Your task to perform on an android device: Open Chrome and go to settings Image 0: 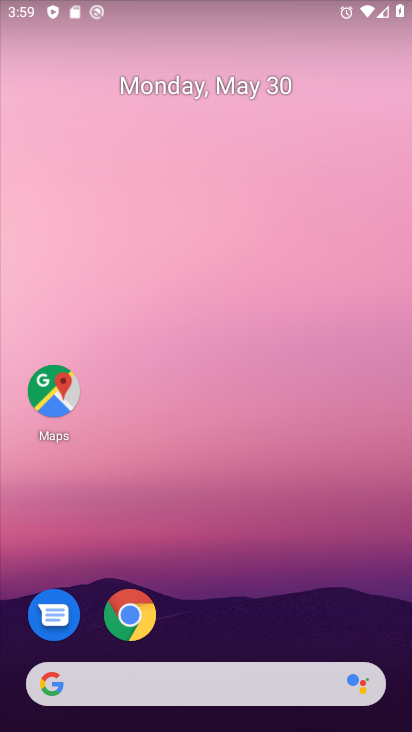
Step 0: click (138, 617)
Your task to perform on an android device: Open Chrome and go to settings Image 1: 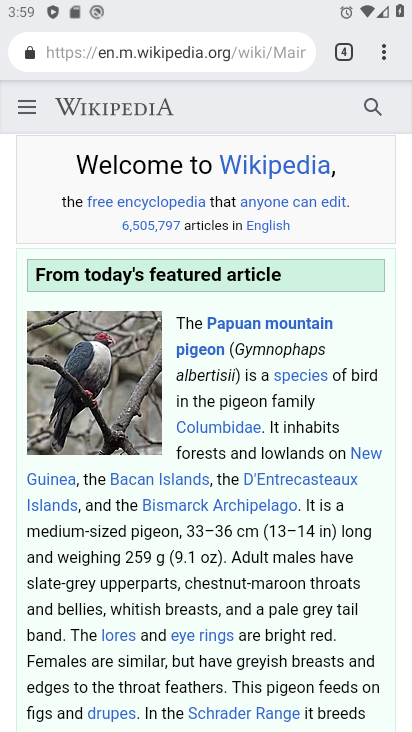
Step 1: click (381, 51)
Your task to perform on an android device: Open Chrome and go to settings Image 2: 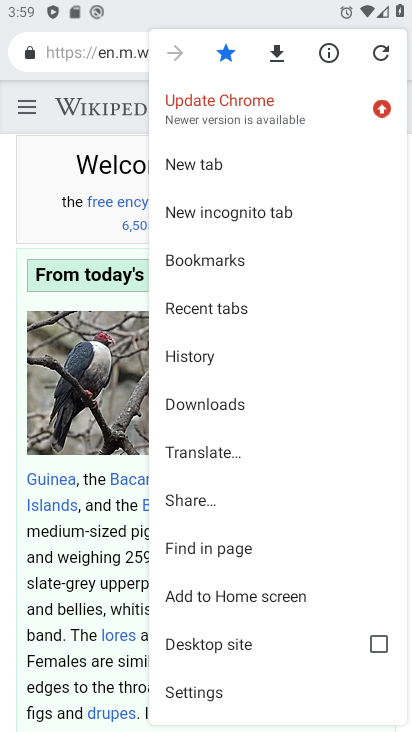
Step 2: click (235, 690)
Your task to perform on an android device: Open Chrome and go to settings Image 3: 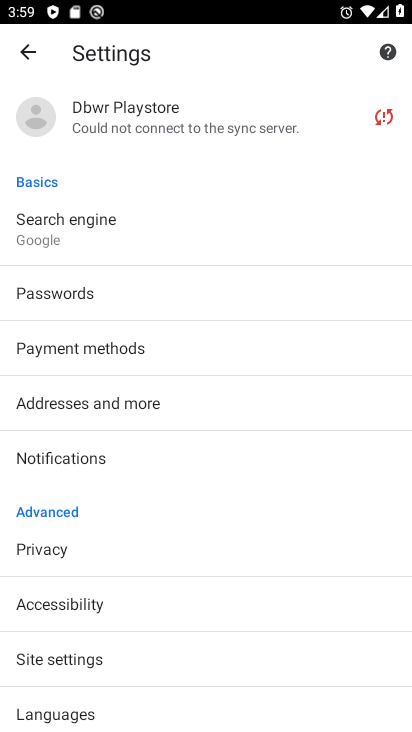
Step 3: task complete